Your task to perform on an android device: toggle airplane mode Image 0: 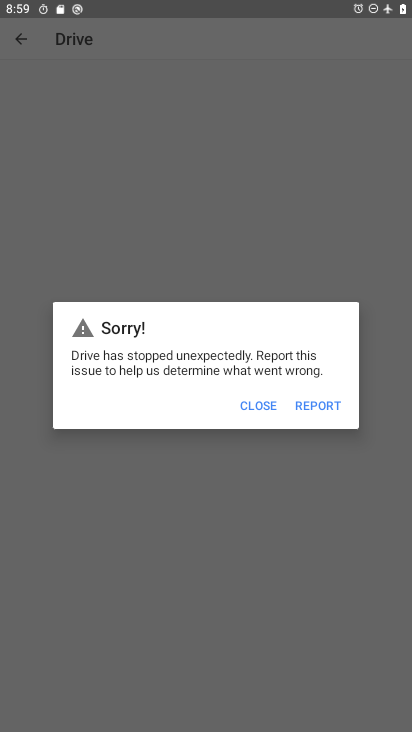
Step 0: press home button
Your task to perform on an android device: toggle airplane mode Image 1: 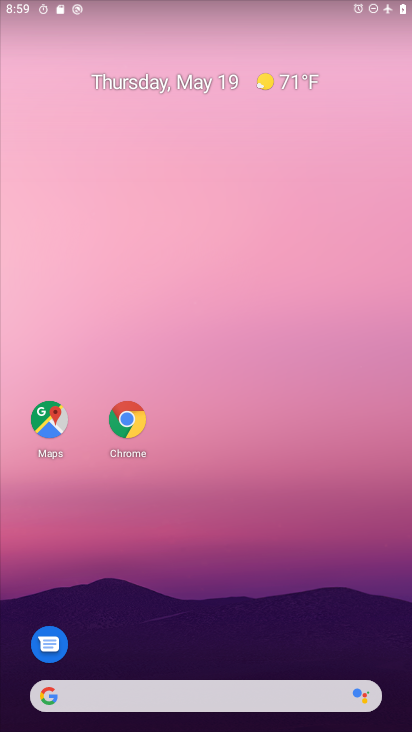
Step 1: drag from (161, 597) to (161, 214)
Your task to perform on an android device: toggle airplane mode Image 2: 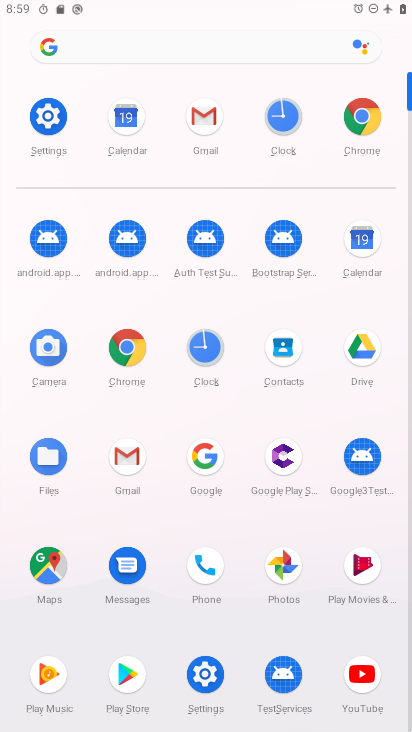
Step 2: click (62, 114)
Your task to perform on an android device: toggle airplane mode Image 3: 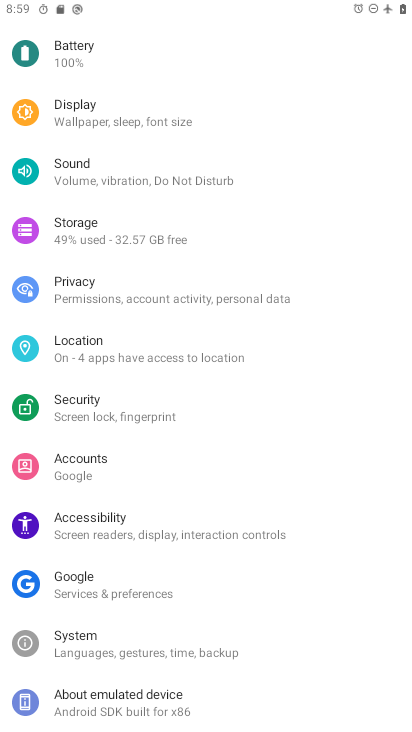
Step 3: drag from (139, 85) to (186, 462)
Your task to perform on an android device: toggle airplane mode Image 4: 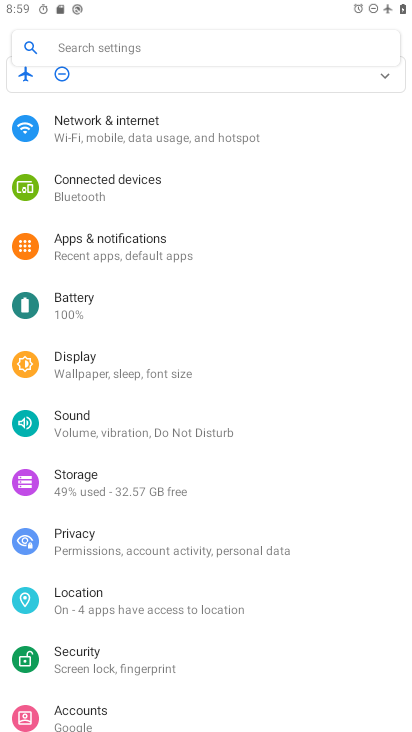
Step 4: click (157, 136)
Your task to perform on an android device: toggle airplane mode Image 5: 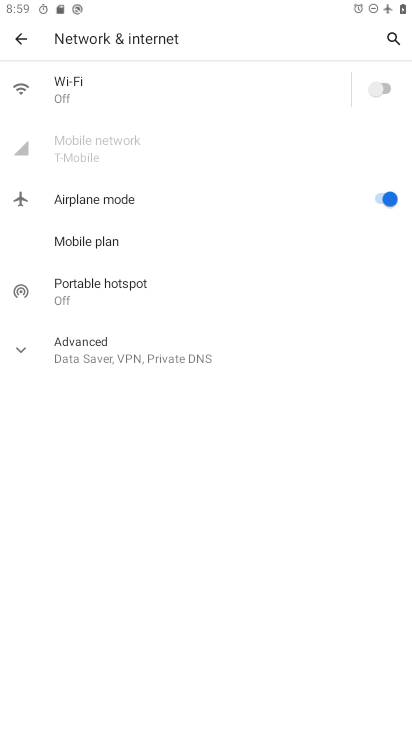
Step 5: click (383, 197)
Your task to perform on an android device: toggle airplane mode Image 6: 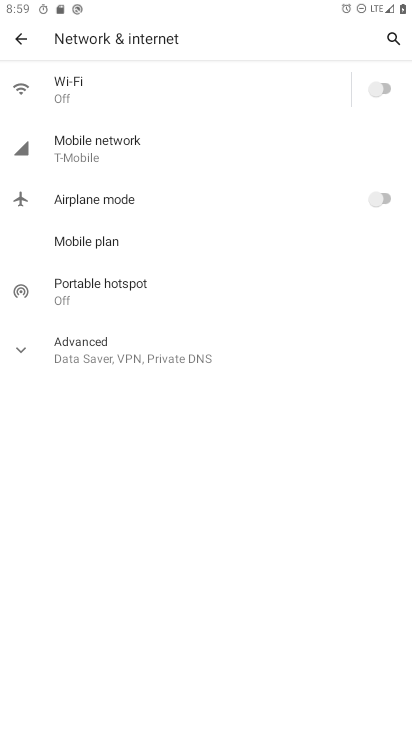
Step 6: task complete